Your task to perform on an android device: Open accessibility settings Image 0: 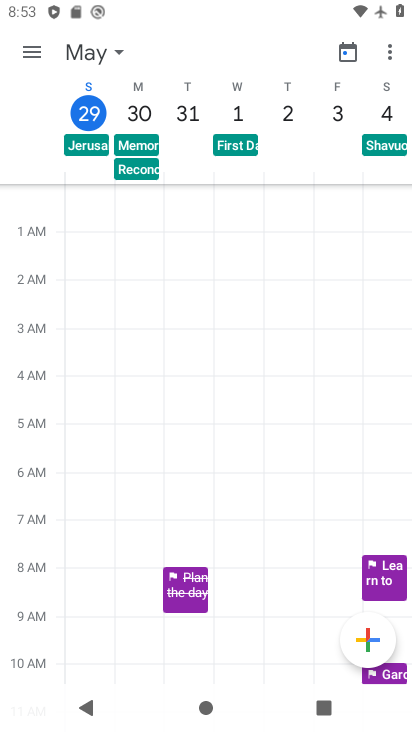
Step 0: press home button
Your task to perform on an android device: Open accessibility settings Image 1: 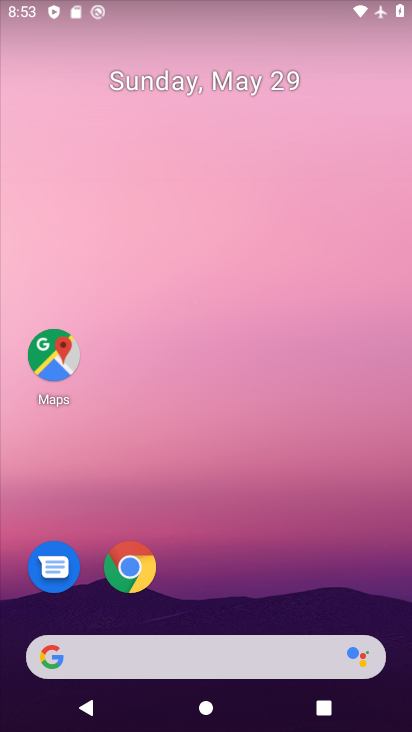
Step 1: drag from (373, 606) to (267, 2)
Your task to perform on an android device: Open accessibility settings Image 2: 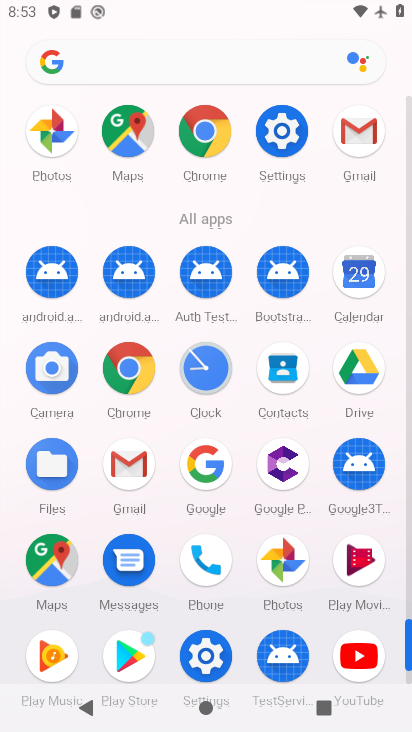
Step 2: click (408, 607)
Your task to perform on an android device: Open accessibility settings Image 3: 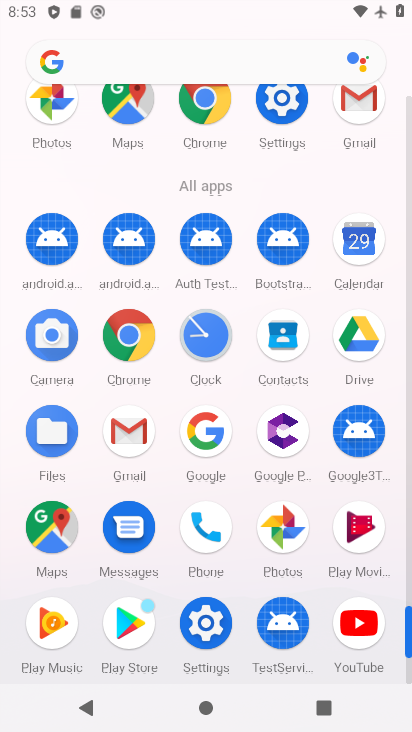
Step 3: click (207, 621)
Your task to perform on an android device: Open accessibility settings Image 4: 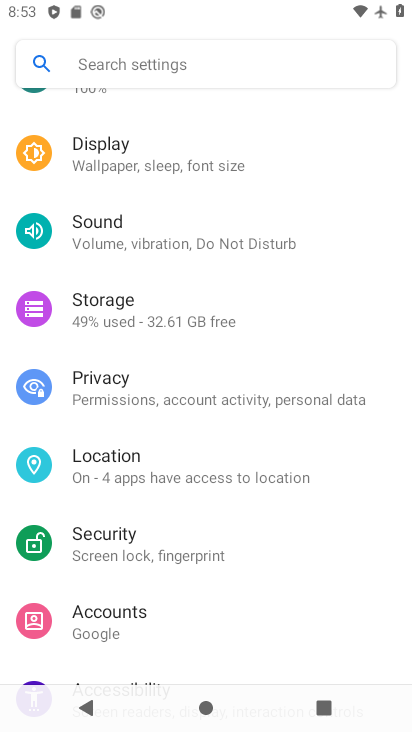
Step 4: drag from (324, 638) to (320, 120)
Your task to perform on an android device: Open accessibility settings Image 5: 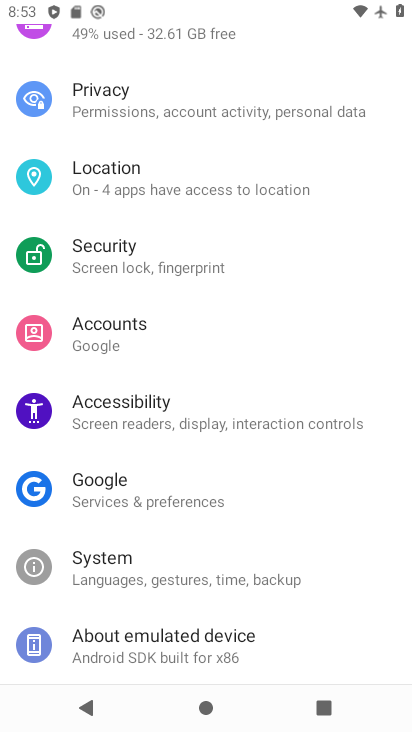
Step 5: click (85, 427)
Your task to perform on an android device: Open accessibility settings Image 6: 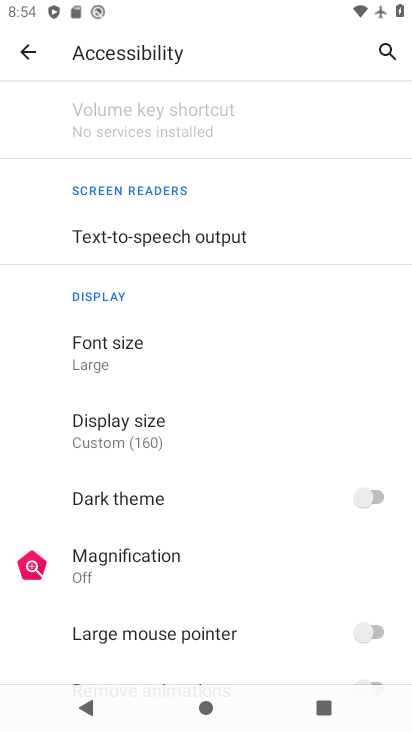
Step 6: task complete